Your task to perform on an android device: Open Amazon Image 0: 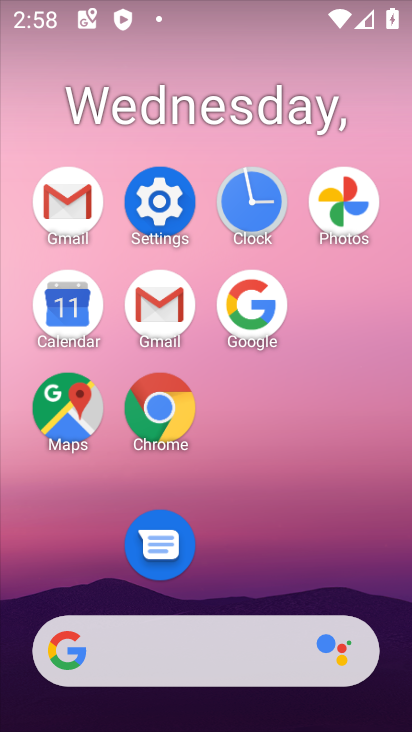
Step 0: click (164, 415)
Your task to perform on an android device: Open Amazon Image 1: 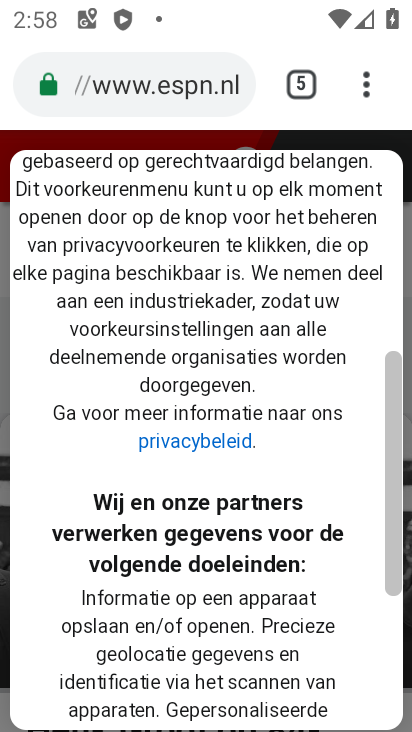
Step 1: click (313, 79)
Your task to perform on an android device: Open Amazon Image 2: 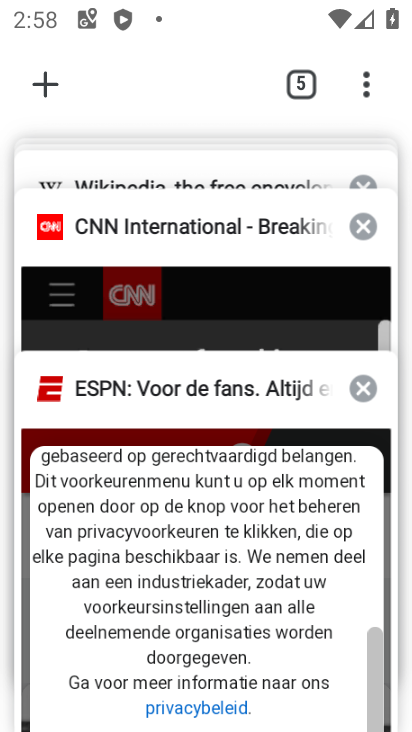
Step 2: drag from (230, 166) to (178, 560)
Your task to perform on an android device: Open Amazon Image 3: 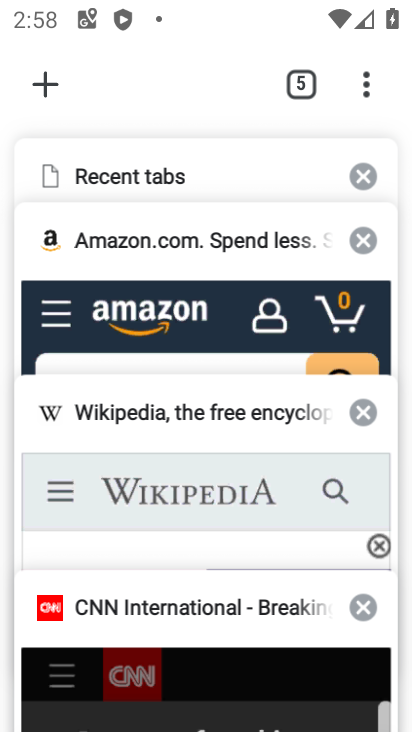
Step 3: click (193, 264)
Your task to perform on an android device: Open Amazon Image 4: 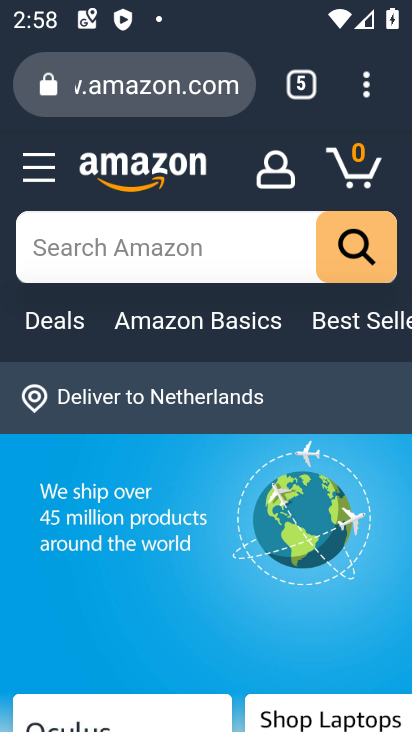
Step 4: task complete